Your task to perform on an android device: open app "Life360: Find Family & Friends" (install if not already installed) and go to login screen Image 0: 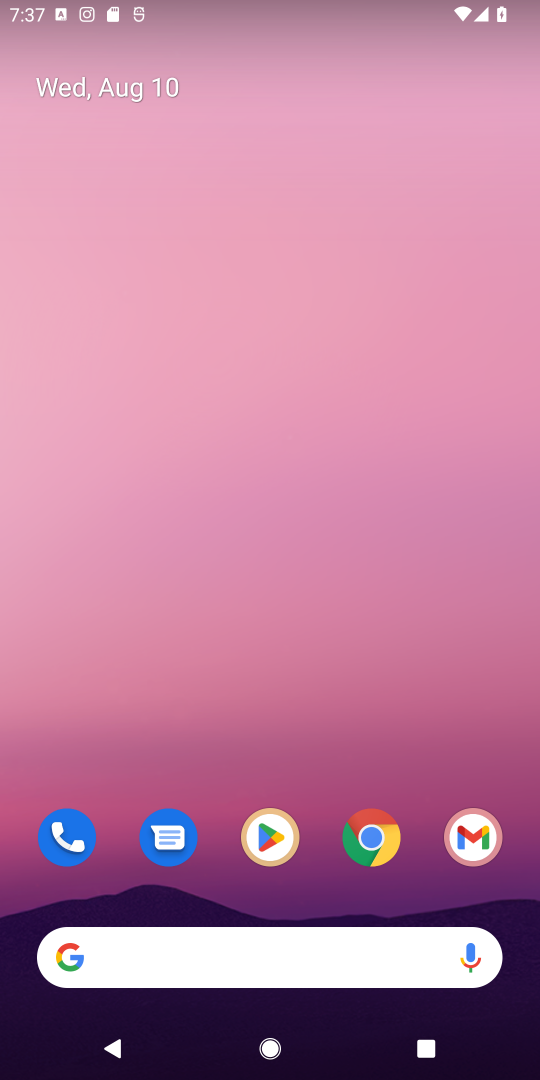
Step 0: press home button
Your task to perform on an android device: open app "Life360: Find Family & Friends" (install if not already installed) and go to login screen Image 1: 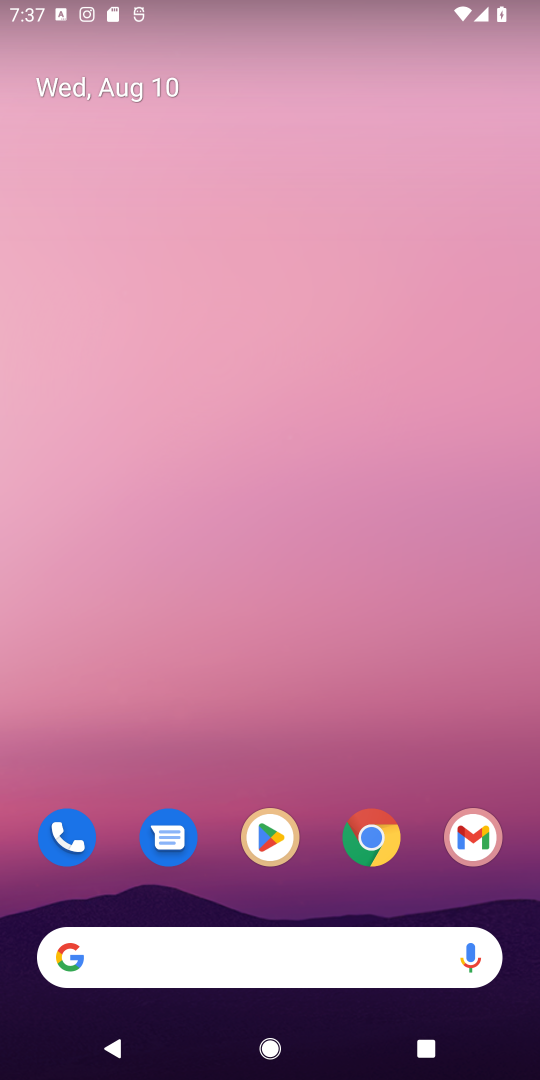
Step 1: click (255, 840)
Your task to perform on an android device: open app "Life360: Find Family & Friends" (install if not already installed) and go to login screen Image 2: 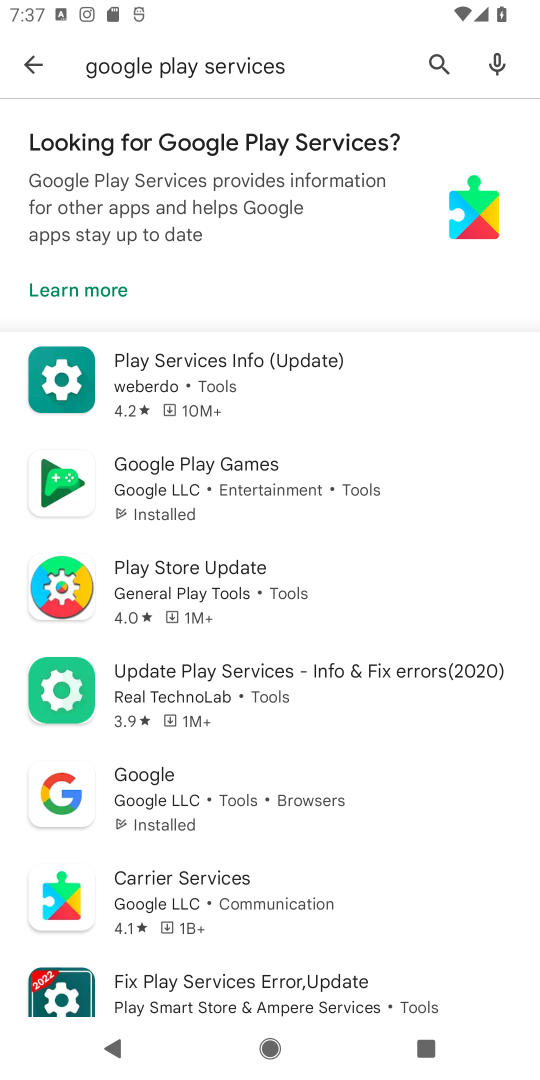
Step 2: click (434, 64)
Your task to perform on an android device: open app "Life360: Find Family & Friends" (install if not already installed) and go to login screen Image 3: 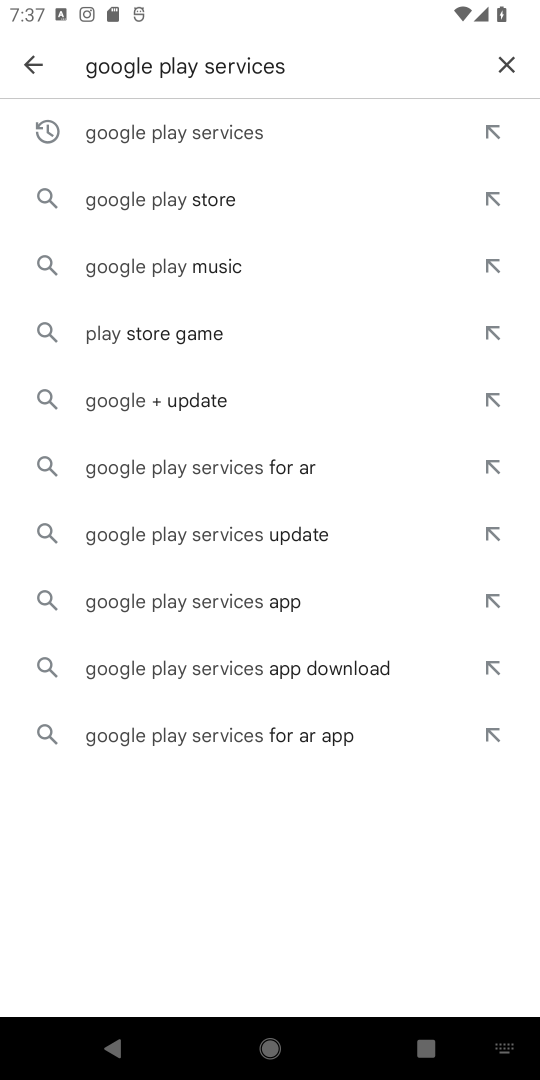
Step 3: click (507, 64)
Your task to perform on an android device: open app "Life360: Find Family & Friends" (install if not already installed) and go to login screen Image 4: 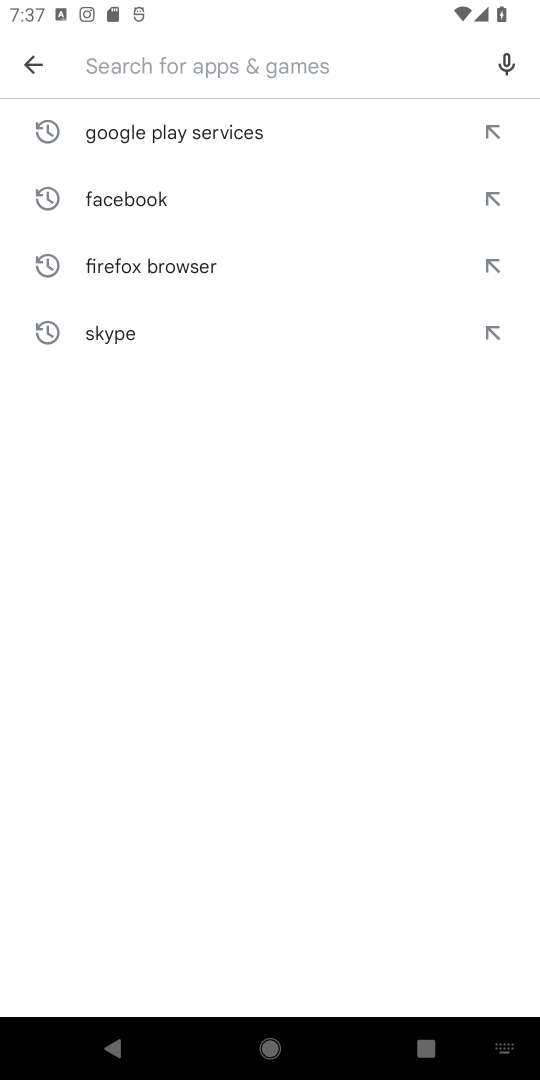
Step 4: type "Life360: Find Family & Friends"
Your task to perform on an android device: open app "Life360: Find Family & Friends" (install if not already installed) and go to login screen Image 5: 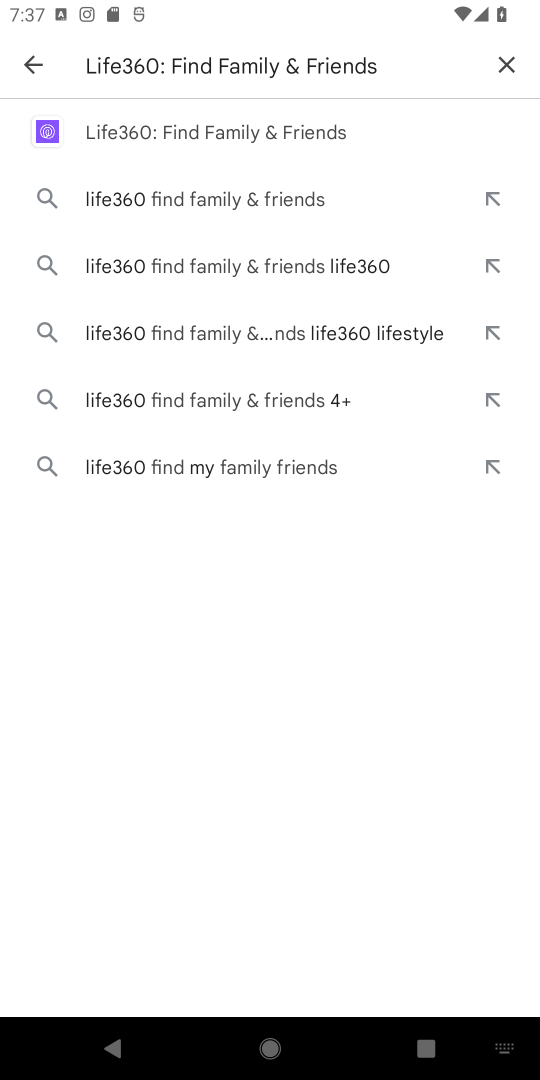
Step 5: click (227, 137)
Your task to perform on an android device: open app "Life360: Find Family & Friends" (install if not already installed) and go to login screen Image 6: 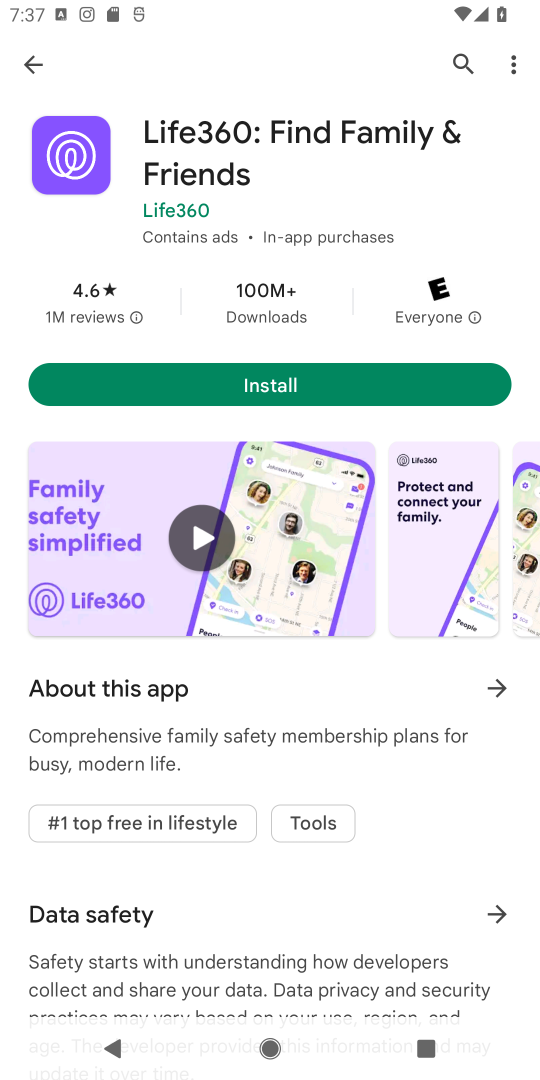
Step 6: click (280, 385)
Your task to perform on an android device: open app "Life360: Find Family & Friends" (install if not already installed) and go to login screen Image 7: 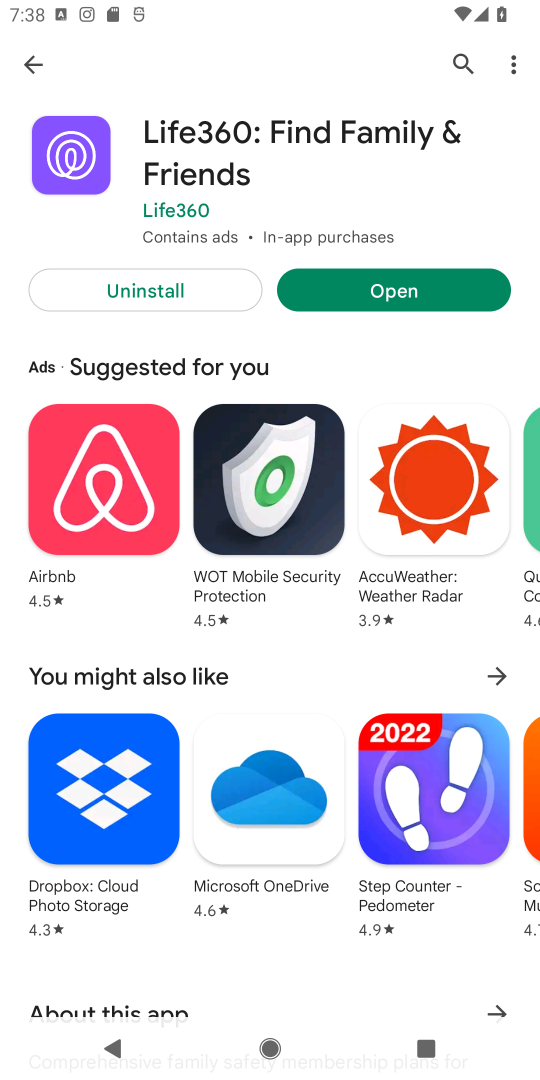
Step 7: click (434, 299)
Your task to perform on an android device: open app "Life360: Find Family & Friends" (install if not already installed) and go to login screen Image 8: 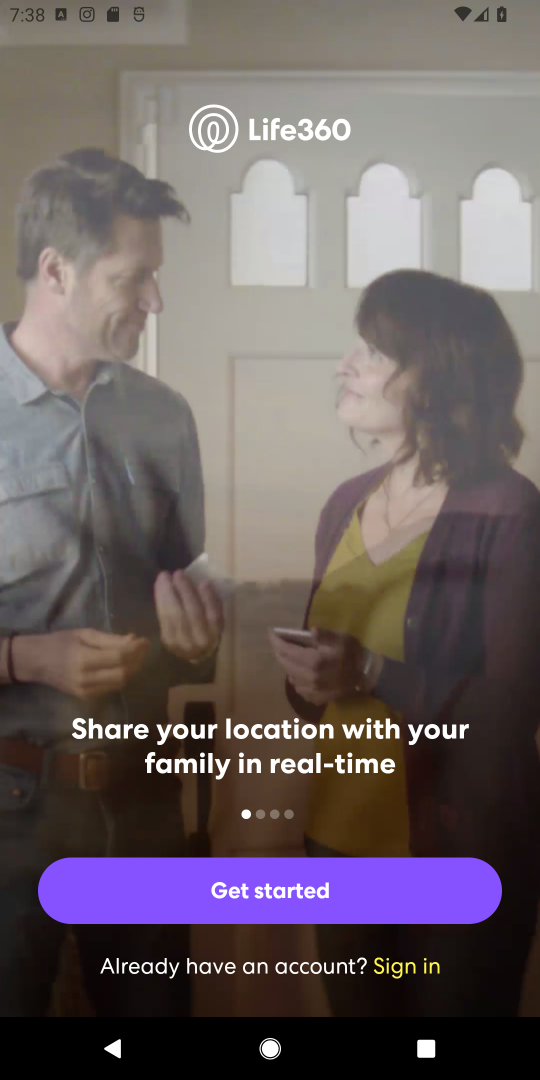
Step 8: task complete